Your task to perform on an android device: turn on priority inbox in the gmail app Image 0: 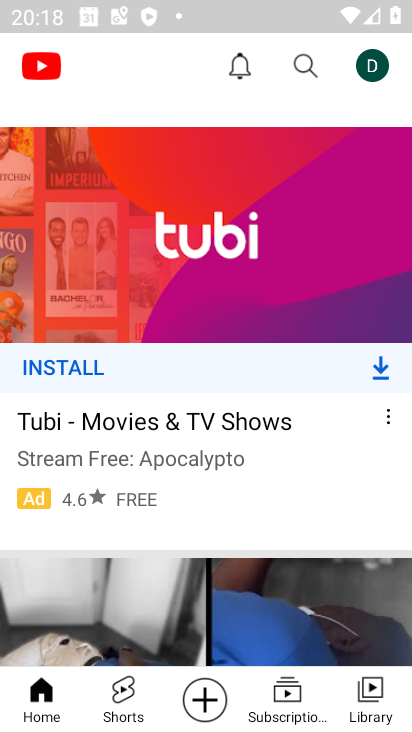
Step 0: press home button
Your task to perform on an android device: turn on priority inbox in the gmail app Image 1: 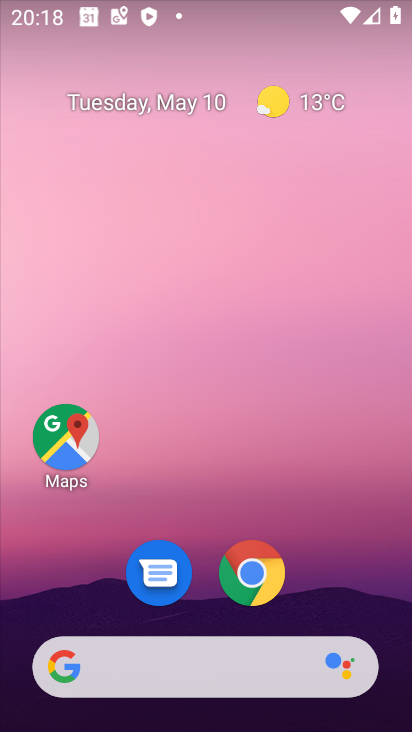
Step 1: drag from (358, 606) to (359, 32)
Your task to perform on an android device: turn on priority inbox in the gmail app Image 2: 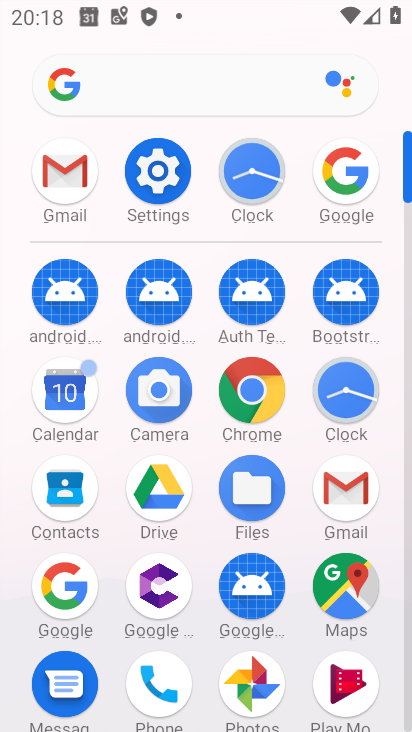
Step 2: click (65, 179)
Your task to perform on an android device: turn on priority inbox in the gmail app Image 3: 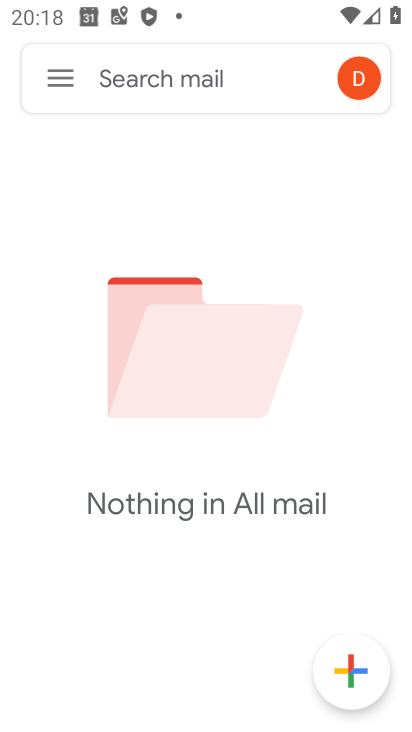
Step 3: click (41, 78)
Your task to perform on an android device: turn on priority inbox in the gmail app Image 4: 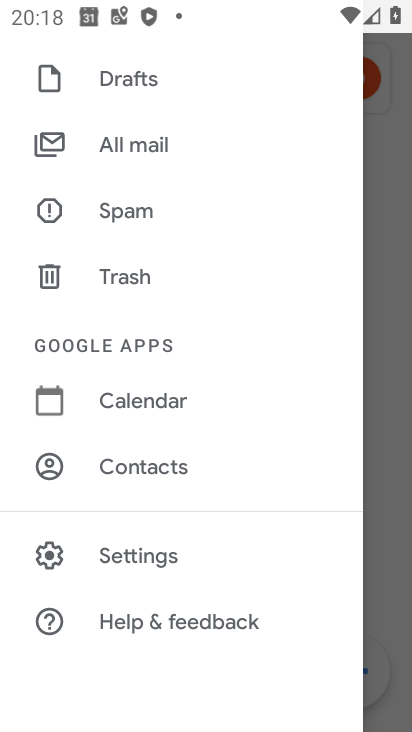
Step 4: click (110, 550)
Your task to perform on an android device: turn on priority inbox in the gmail app Image 5: 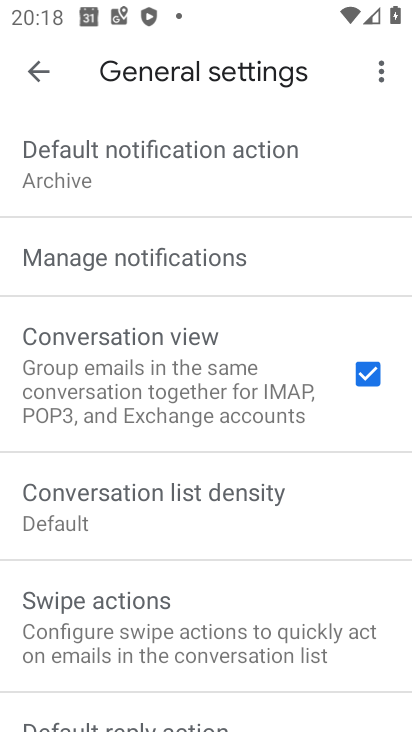
Step 5: click (43, 71)
Your task to perform on an android device: turn on priority inbox in the gmail app Image 6: 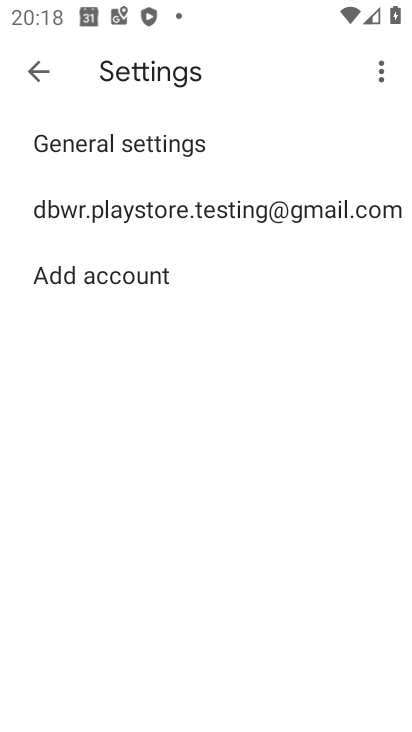
Step 6: click (55, 209)
Your task to perform on an android device: turn on priority inbox in the gmail app Image 7: 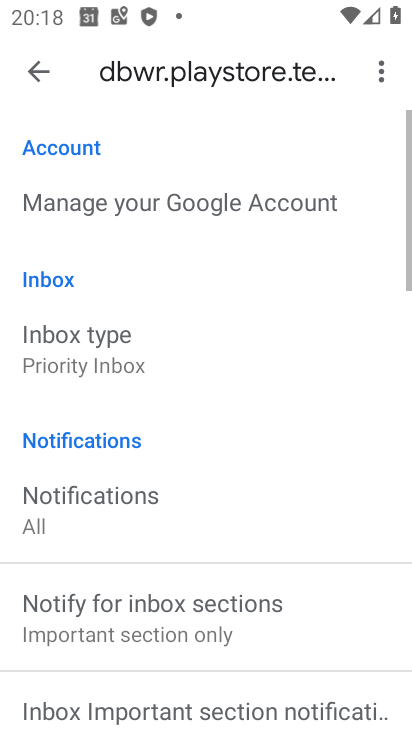
Step 7: click (53, 379)
Your task to perform on an android device: turn on priority inbox in the gmail app Image 8: 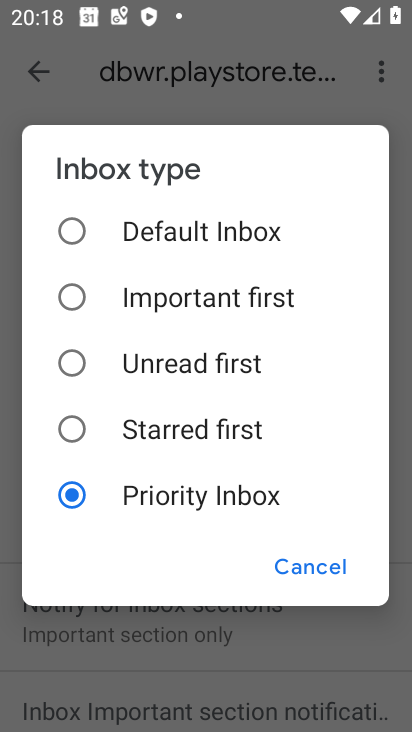
Step 8: task complete